Your task to perform on an android device: Empty the shopping cart on costco. Image 0: 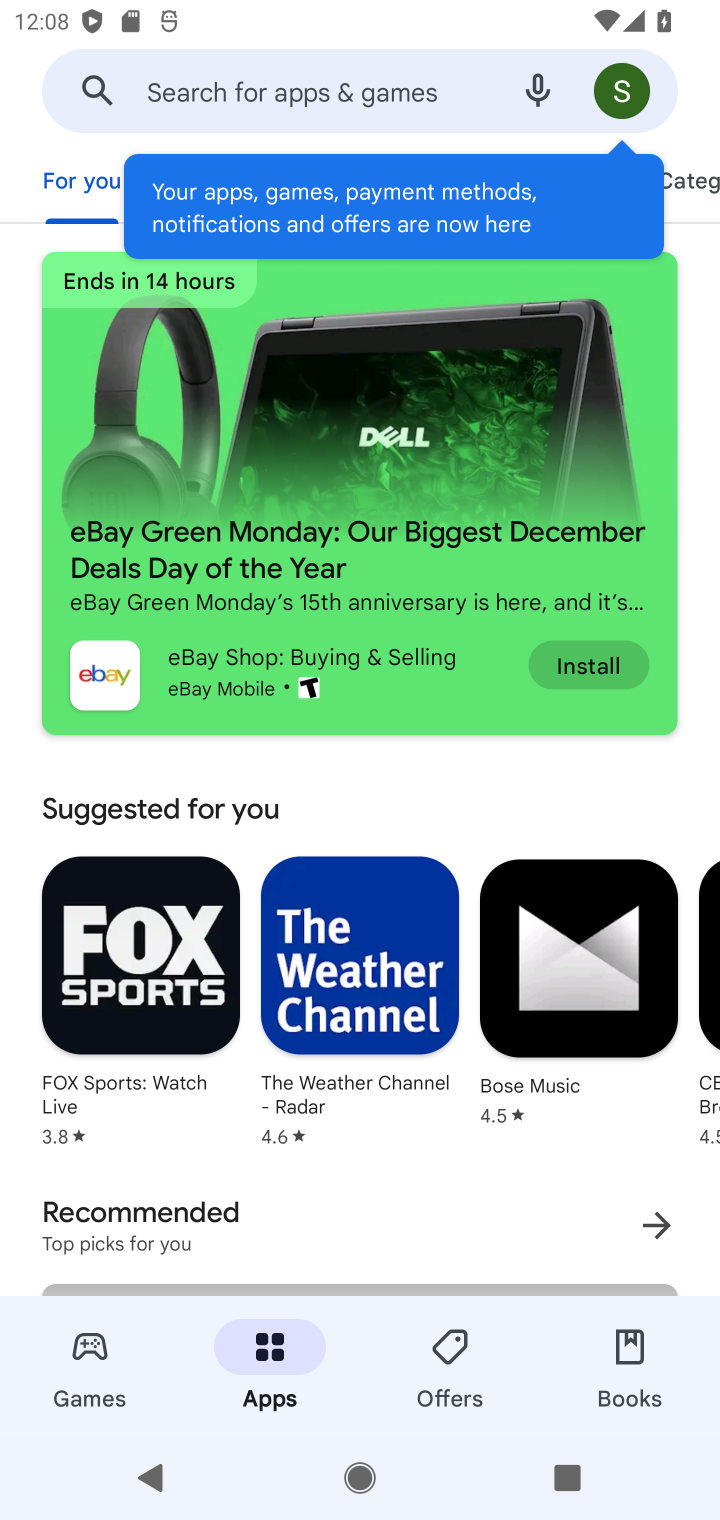
Step 0: click (279, 88)
Your task to perform on an android device: Empty the shopping cart on costco. Image 1: 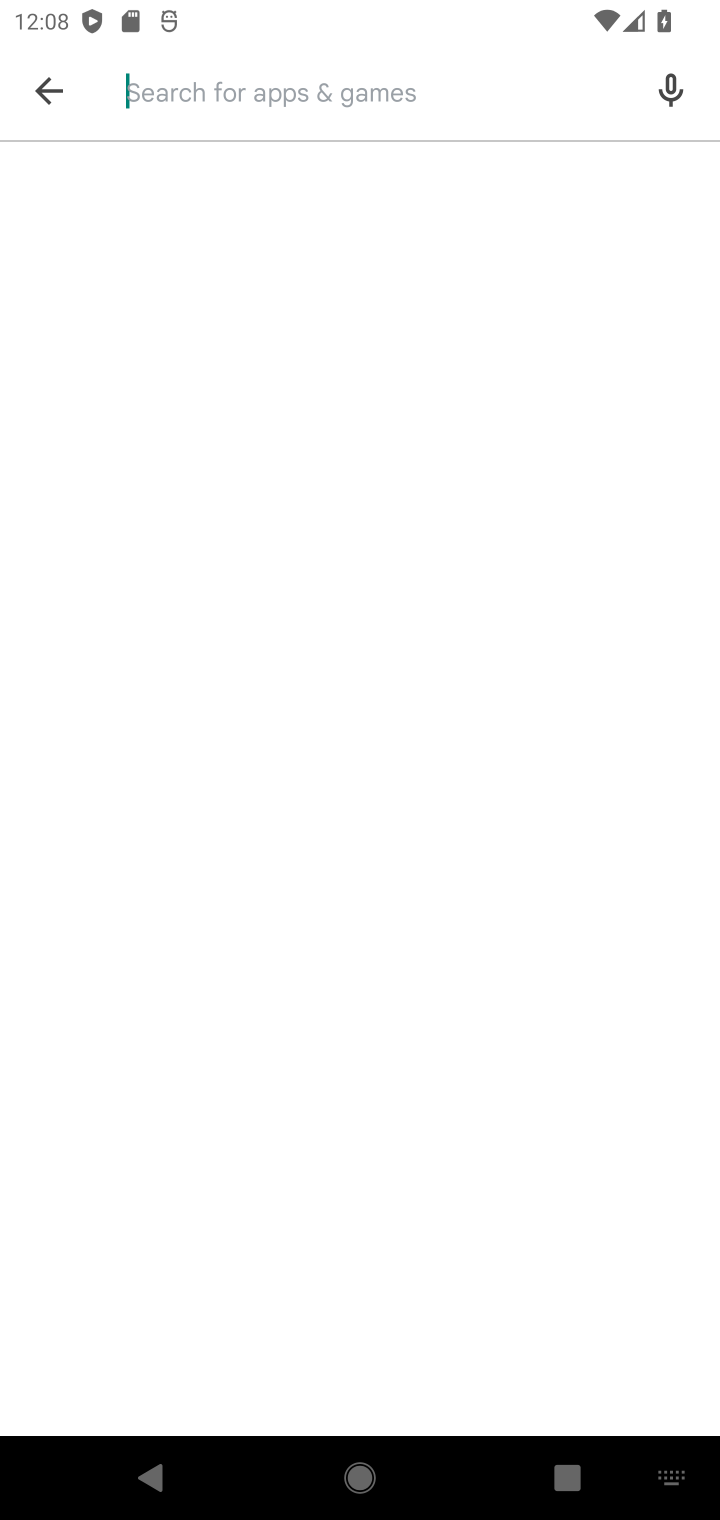
Step 1: type "costco"
Your task to perform on an android device: Empty the shopping cart on costco. Image 2: 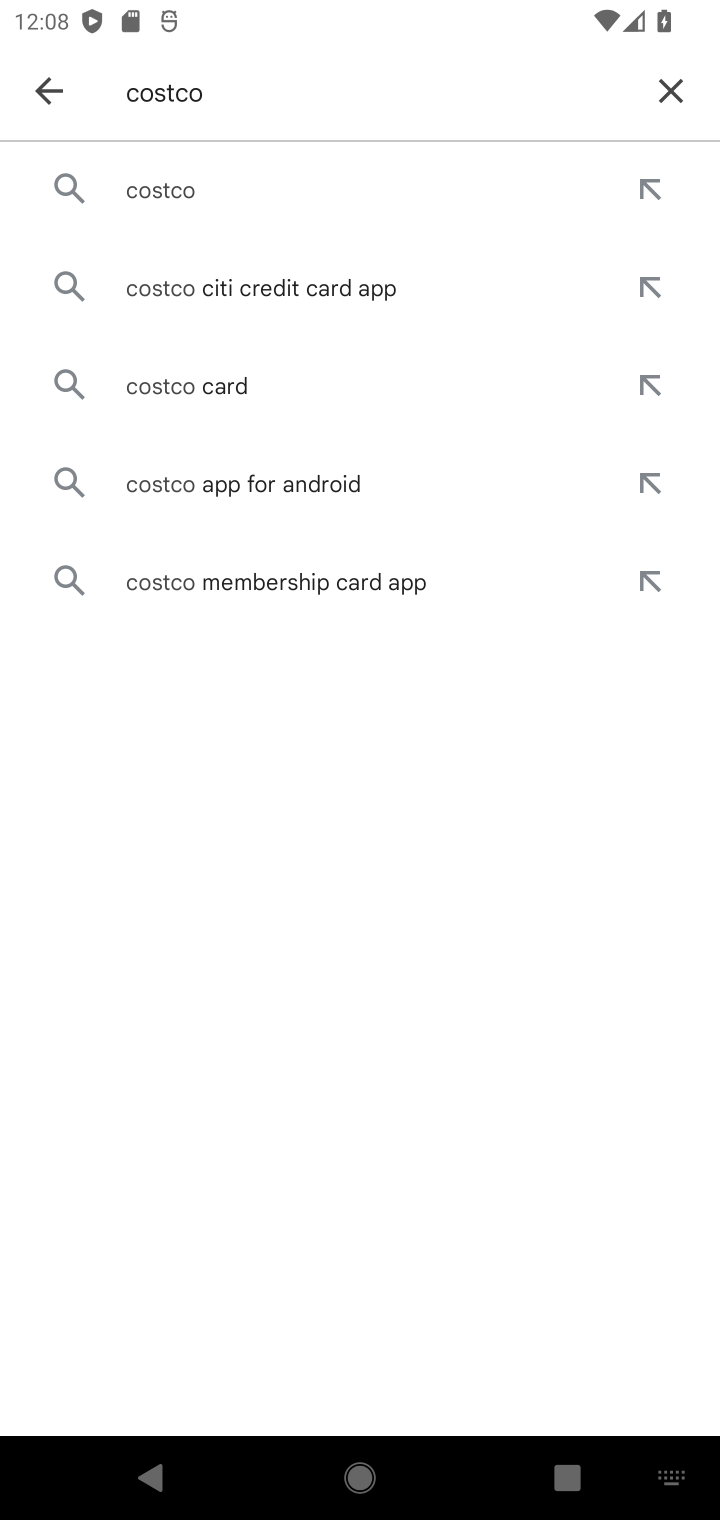
Step 2: click (208, 168)
Your task to perform on an android device: Empty the shopping cart on costco. Image 3: 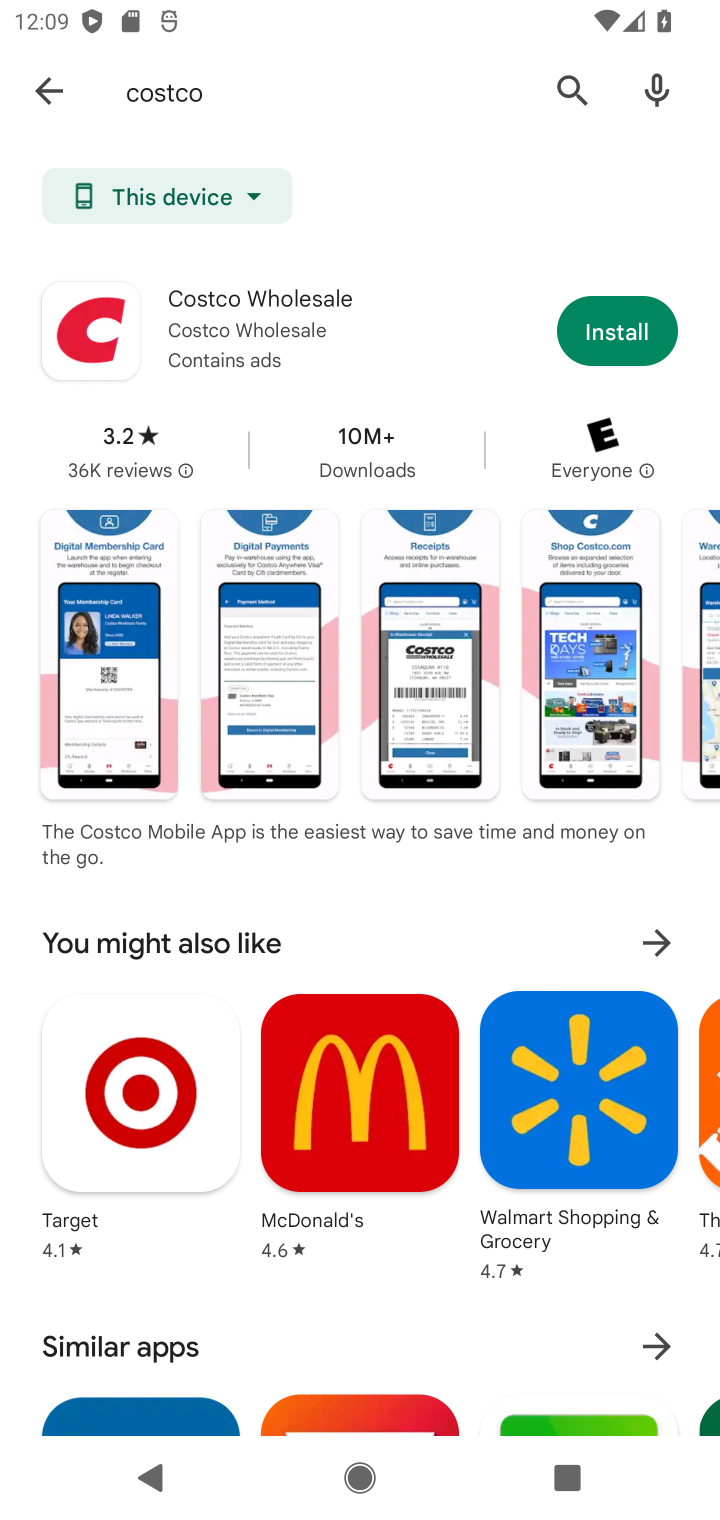
Step 3: press home button
Your task to perform on an android device: Empty the shopping cart on costco. Image 4: 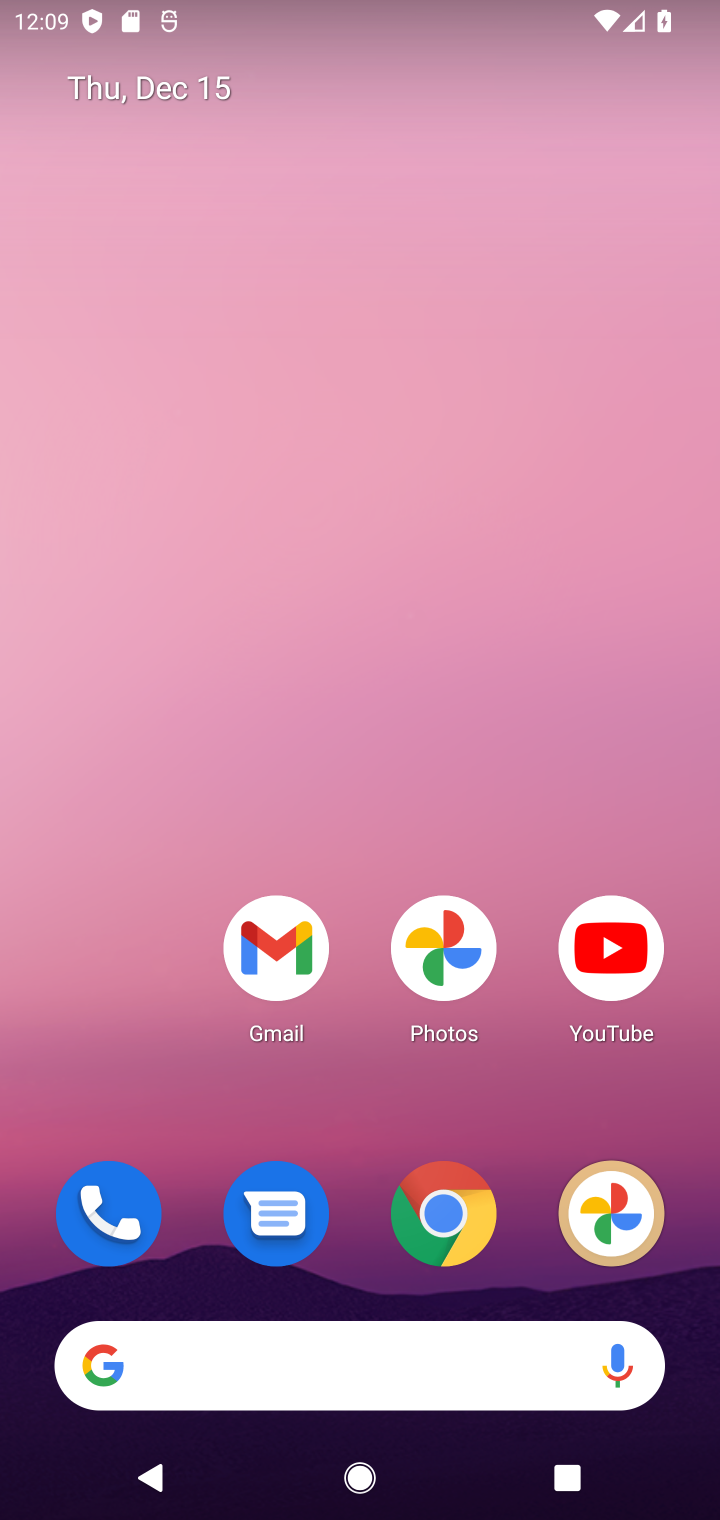
Step 4: click (355, 1374)
Your task to perform on an android device: Empty the shopping cart on costco. Image 5: 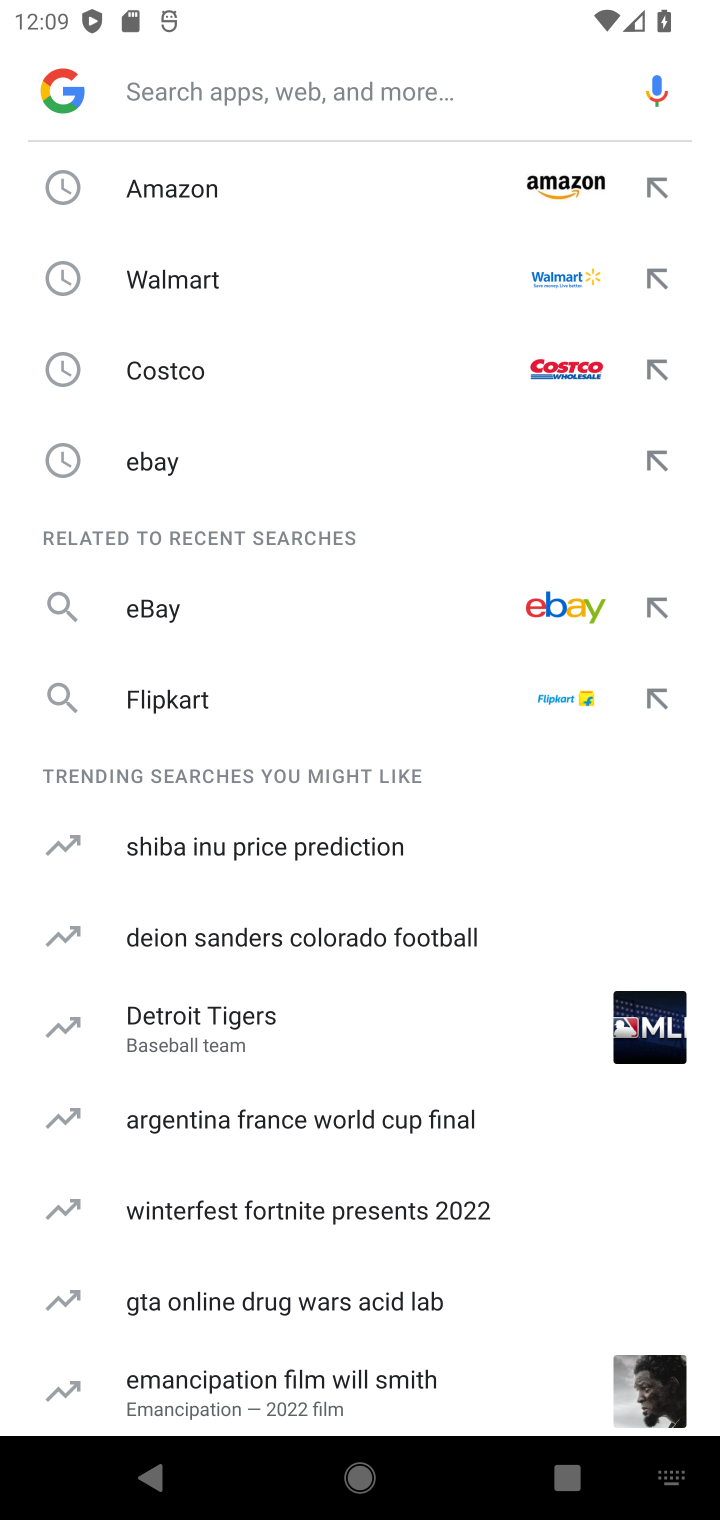
Step 5: click (247, 367)
Your task to perform on an android device: Empty the shopping cart on costco. Image 6: 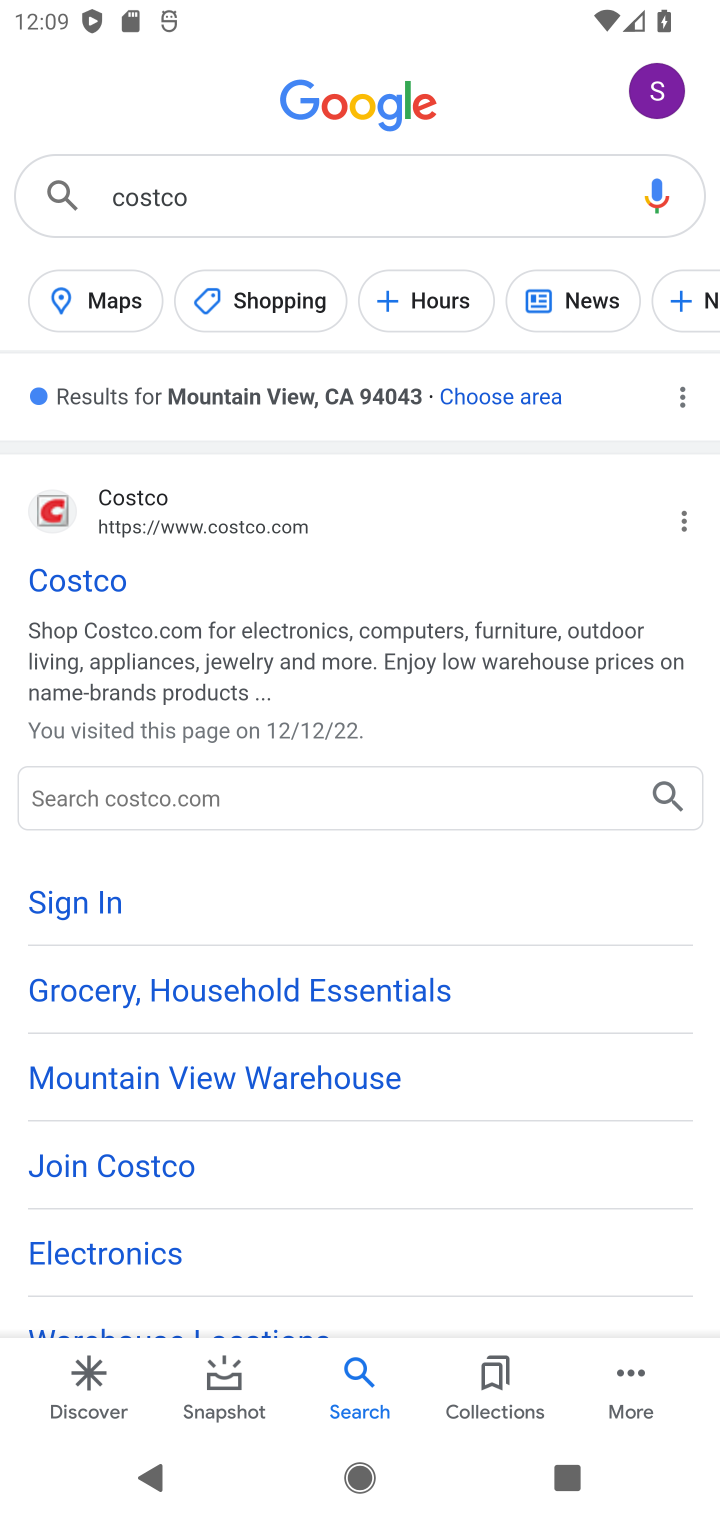
Step 6: click (68, 554)
Your task to perform on an android device: Empty the shopping cart on costco. Image 7: 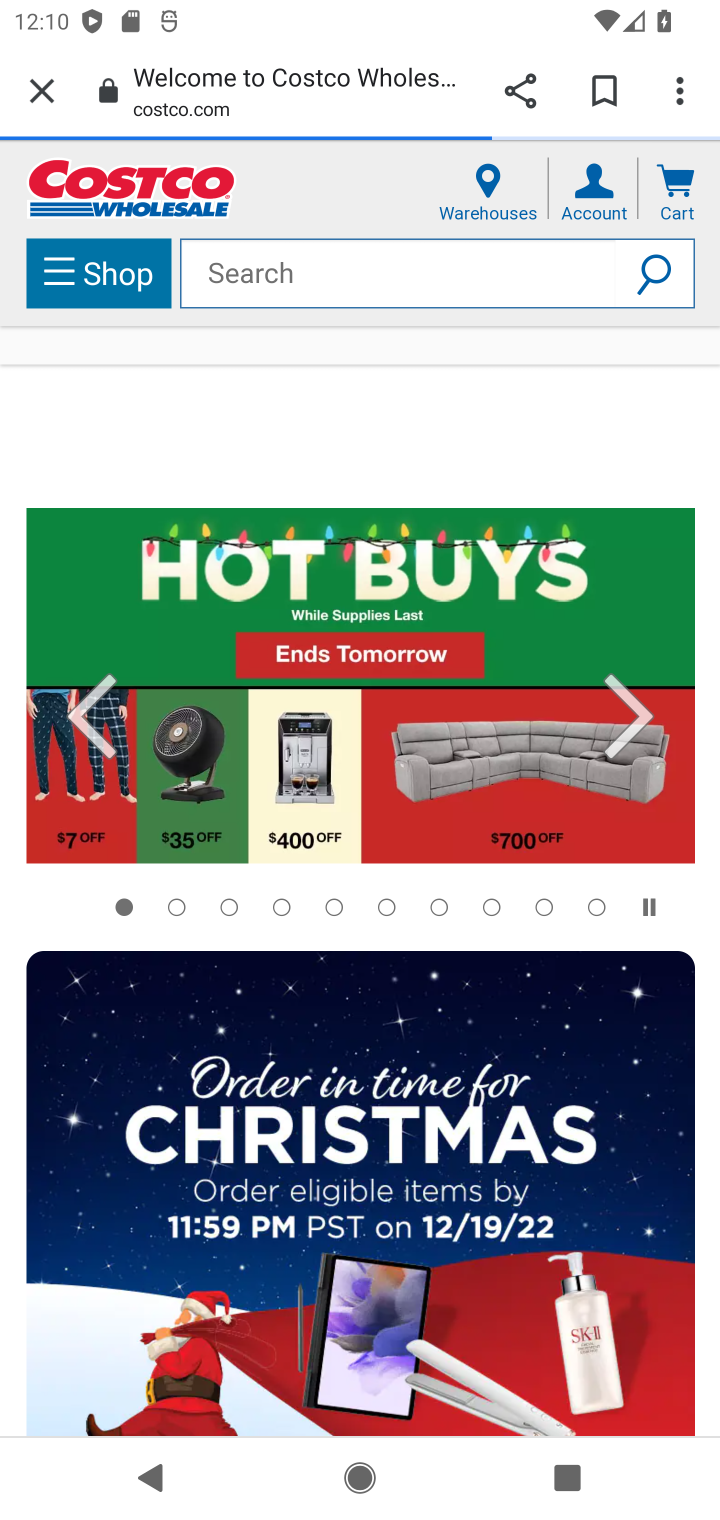
Step 7: click (655, 172)
Your task to perform on an android device: Empty the shopping cart on costco. Image 8: 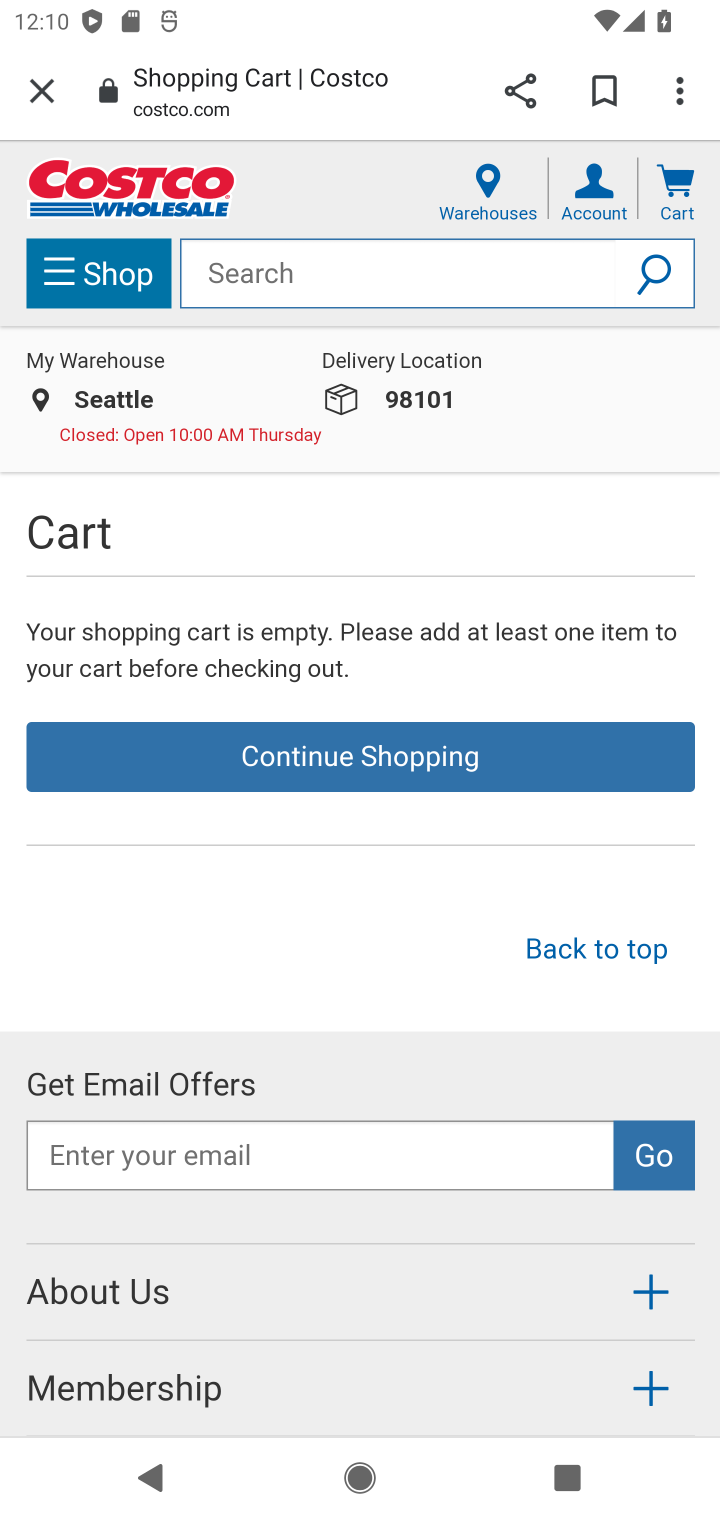
Step 8: task complete